Your task to perform on an android device: Go to Google maps Image 0: 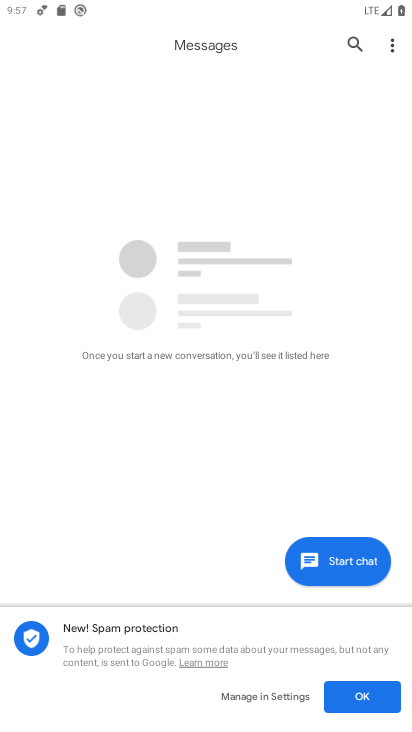
Step 0: press home button
Your task to perform on an android device: Go to Google maps Image 1: 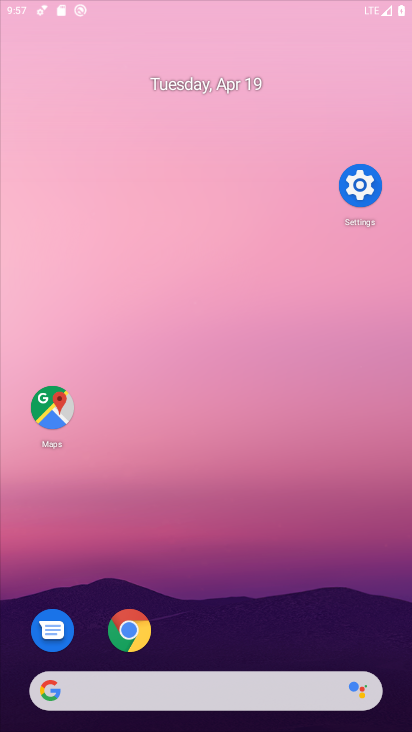
Step 1: drag from (249, 451) to (255, 87)
Your task to perform on an android device: Go to Google maps Image 2: 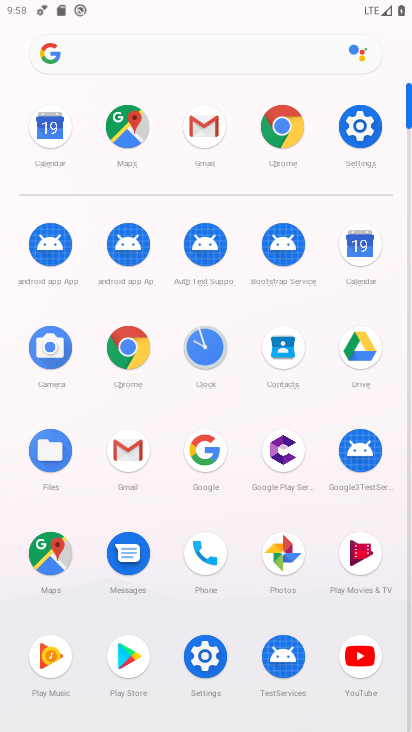
Step 2: click (59, 569)
Your task to perform on an android device: Go to Google maps Image 3: 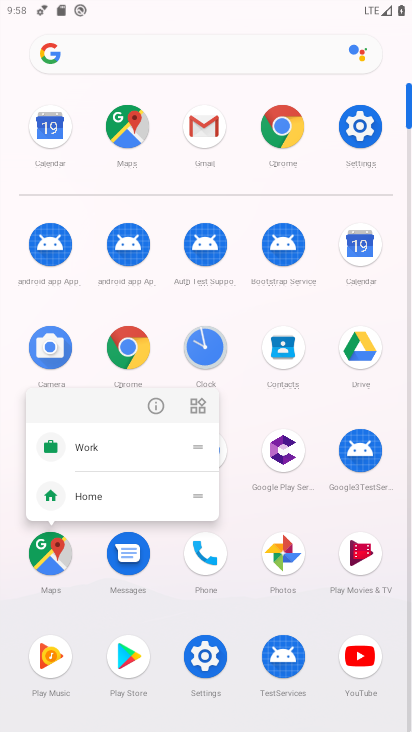
Step 3: click (57, 572)
Your task to perform on an android device: Go to Google maps Image 4: 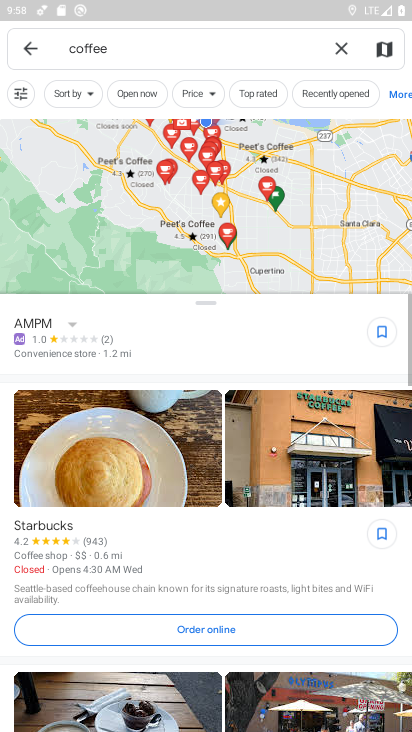
Step 4: task complete